Your task to perform on an android device: What's on my calendar today? Image 0: 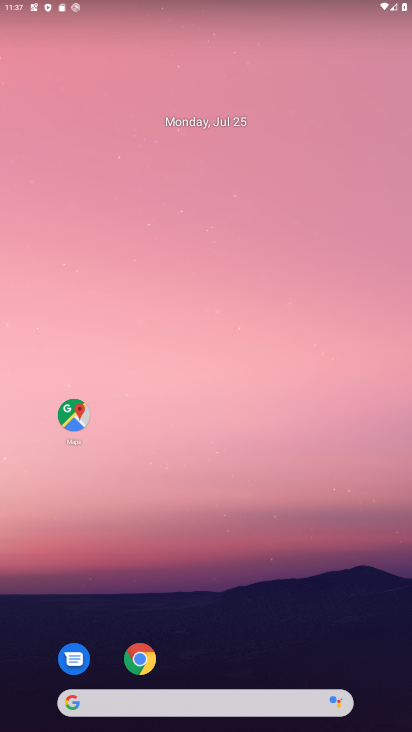
Step 0: drag from (175, 670) to (268, 7)
Your task to perform on an android device: What's on my calendar today? Image 1: 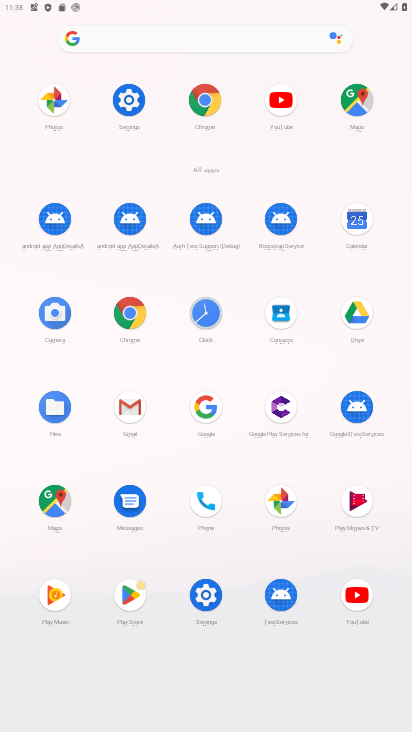
Step 1: click (353, 234)
Your task to perform on an android device: What's on my calendar today? Image 2: 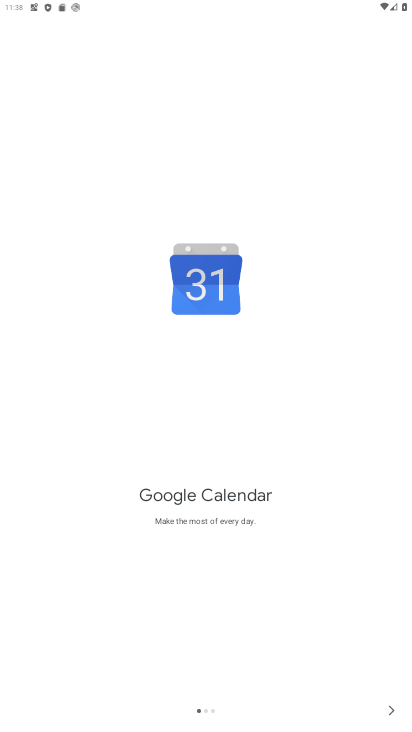
Step 2: click (388, 710)
Your task to perform on an android device: What's on my calendar today? Image 3: 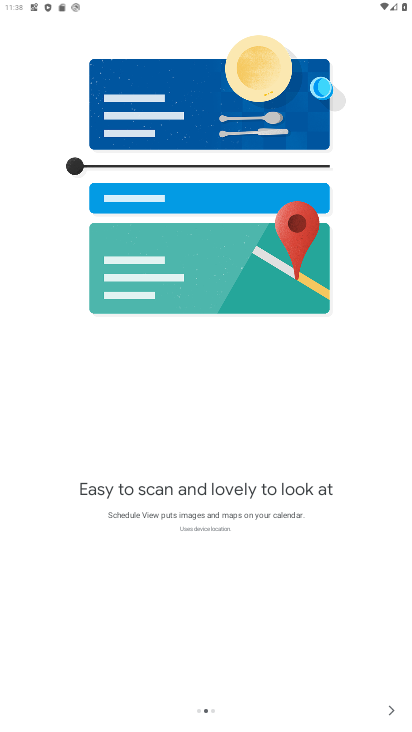
Step 3: click (388, 710)
Your task to perform on an android device: What's on my calendar today? Image 4: 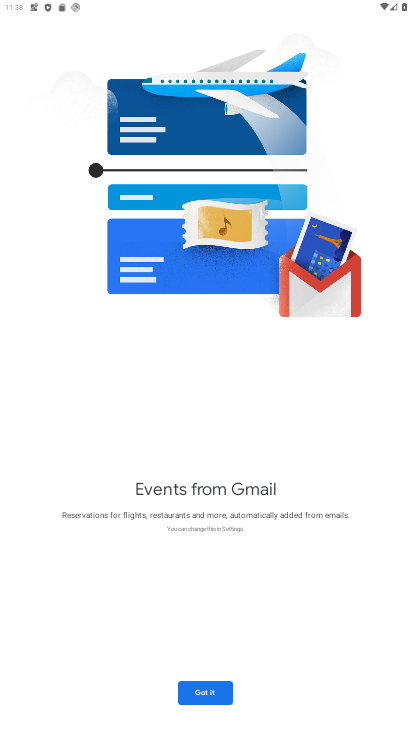
Step 4: click (208, 694)
Your task to perform on an android device: What's on my calendar today? Image 5: 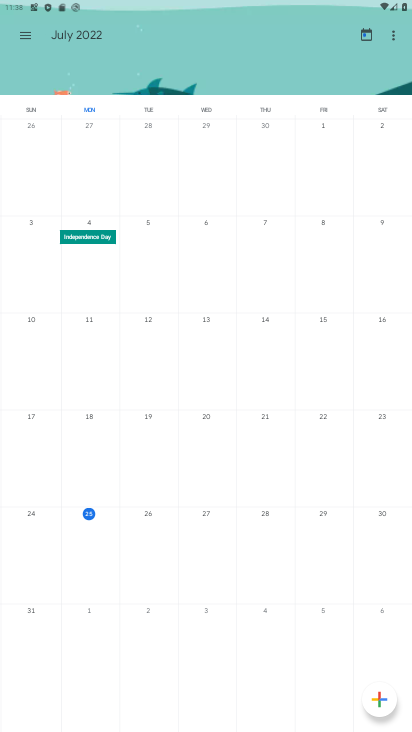
Step 5: task complete